Your task to perform on an android device: What's the weather today? Image 0: 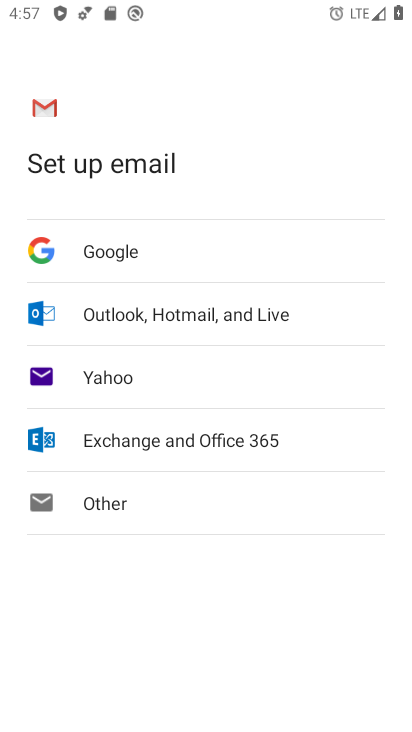
Step 0: press home button
Your task to perform on an android device: What's the weather today? Image 1: 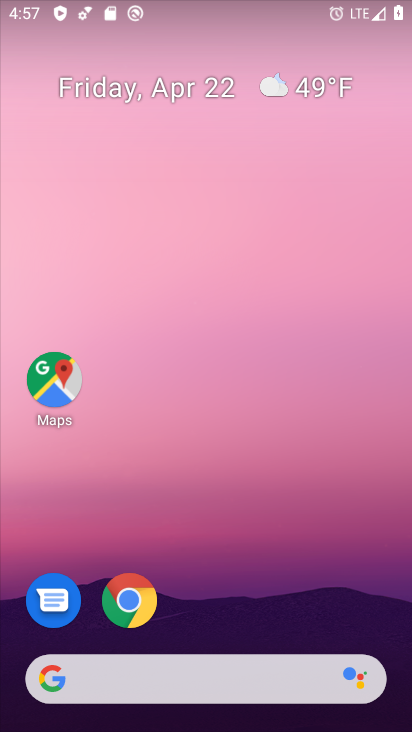
Step 1: drag from (256, 587) to (185, 36)
Your task to perform on an android device: What's the weather today? Image 2: 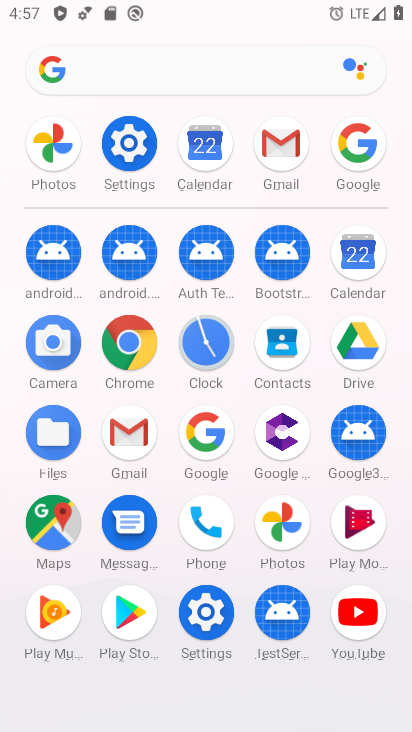
Step 2: click (358, 142)
Your task to perform on an android device: What's the weather today? Image 3: 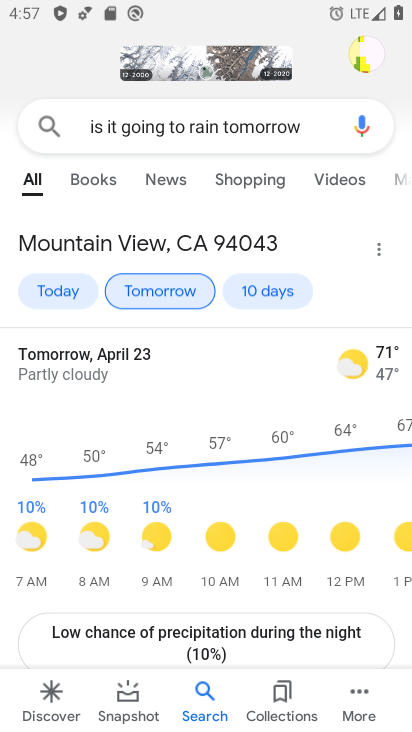
Step 3: click (63, 292)
Your task to perform on an android device: What's the weather today? Image 4: 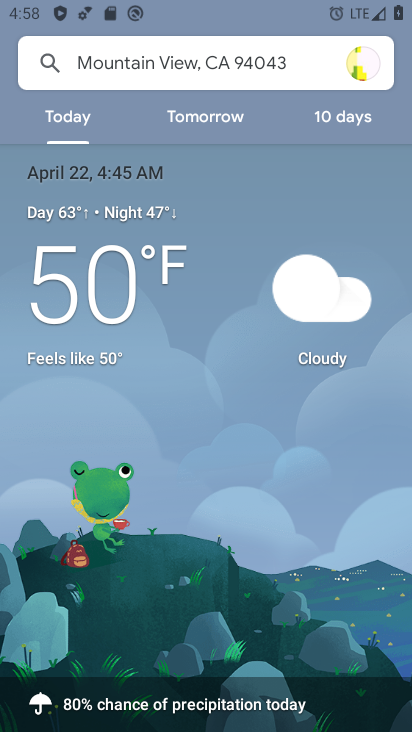
Step 4: task complete